Your task to perform on an android device: toggle pop-ups in chrome Image 0: 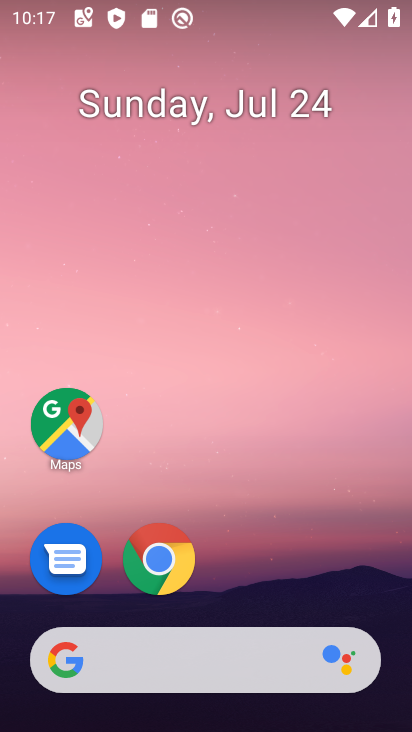
Step 0: click (151, 562)
Your task to perform on an android device: toggle pop-ups in chrome Image 1: 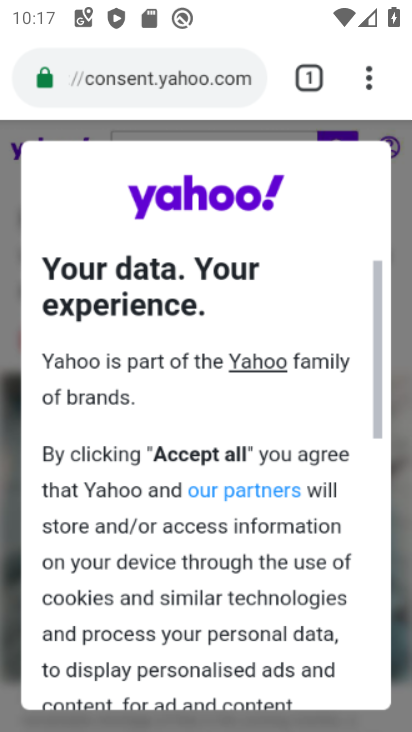
Step 1: drag from (365, 71) to (94, 616)
Your task to perform on an android device: toggle pop-ups in chrome Image 2: 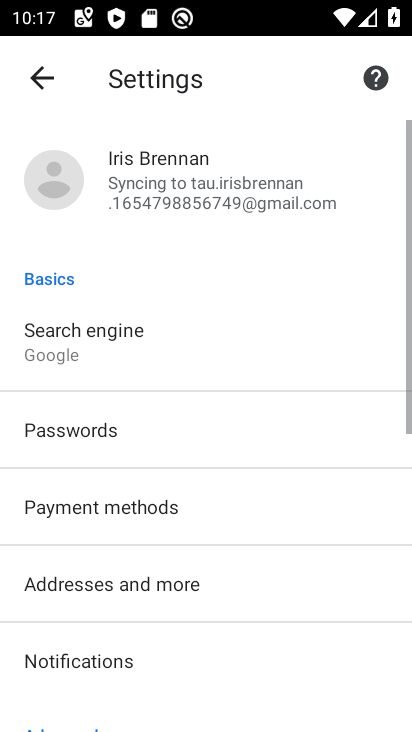
Step 2: drag from (110, 594) to (243, 67)
Your task to perform on an android device: toggle pop-ups in chrome Image 3: 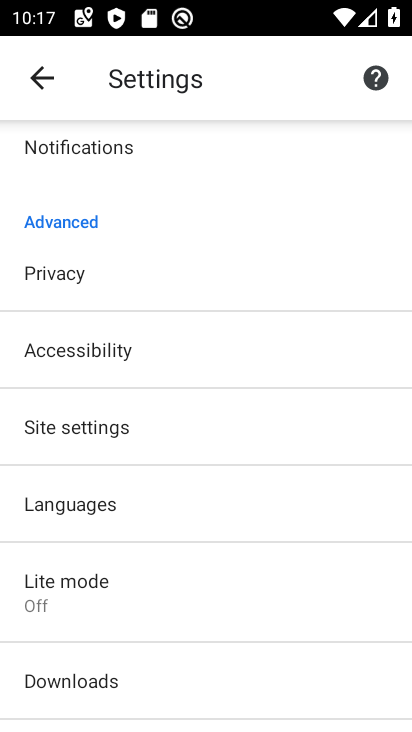
Step 3: click (133, 430)
Your task to perform on an android device: toggle pop-ups in chrome Image 4: 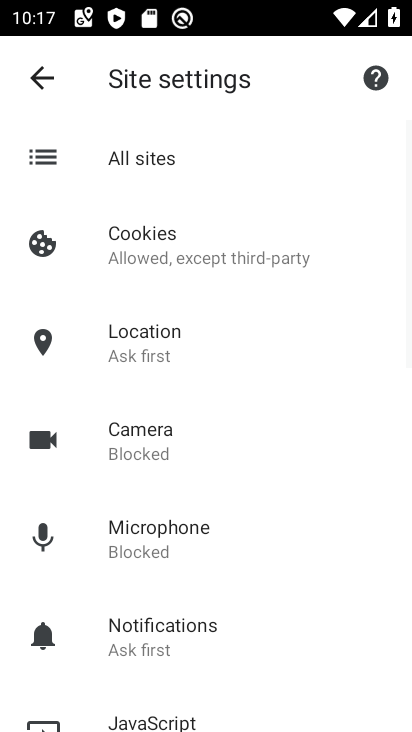
Step 4: drag from (142, 696) to (291, 145)
Your task to perform on an android device: toggle pop-ups in chrome Image 5: 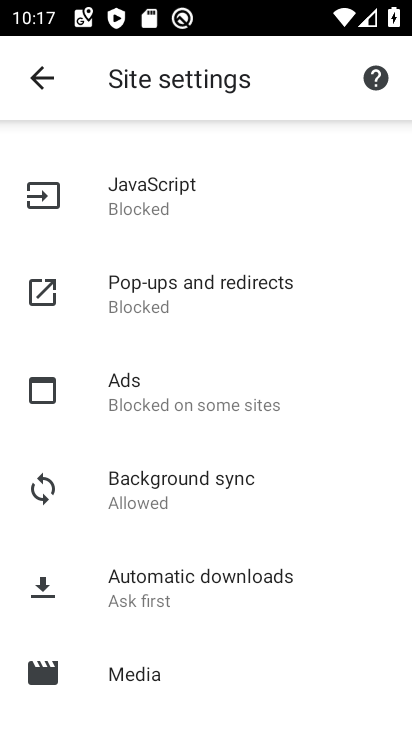
Step 5: click (170, 296)
Your task to perform on an android device: toggle pop-ups in chrome Image 6: 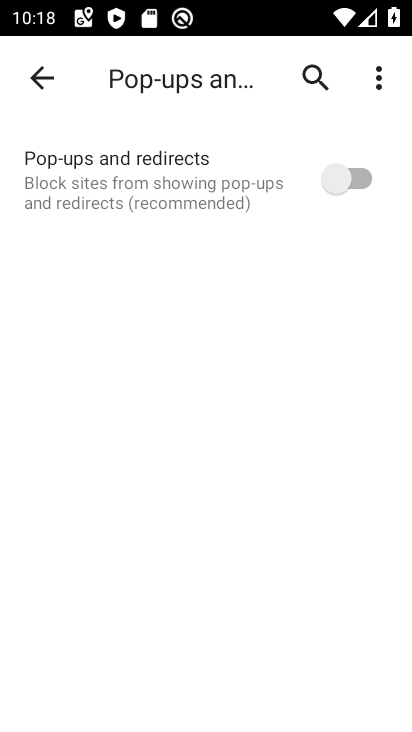
Step 6: click (339, 179)
Your task to perform on an android device: toggle pop-ups in chrome Image 7: 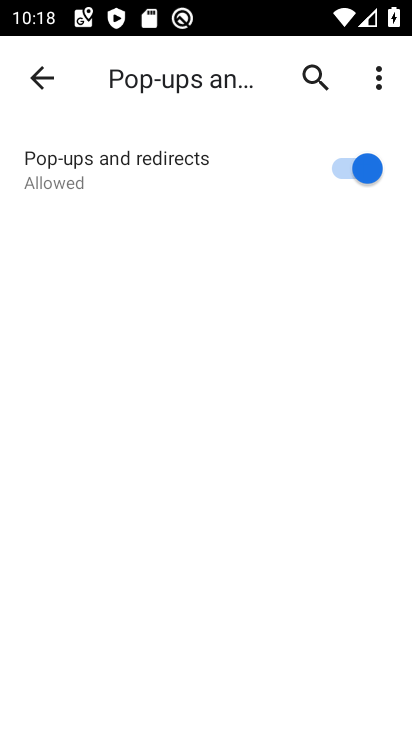
Step 7: task complete